Your task to perform on an android device: open app "Adobe Acrobat Reader" (install if not already installed) Image 0: 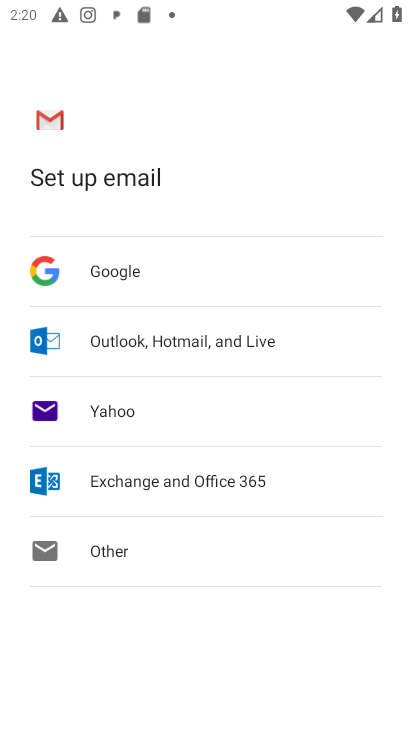
Step 0: press home button
Your task to perform on an android device: open app "Adobe Acrobat Reader" (install if not already installed) Image 1: 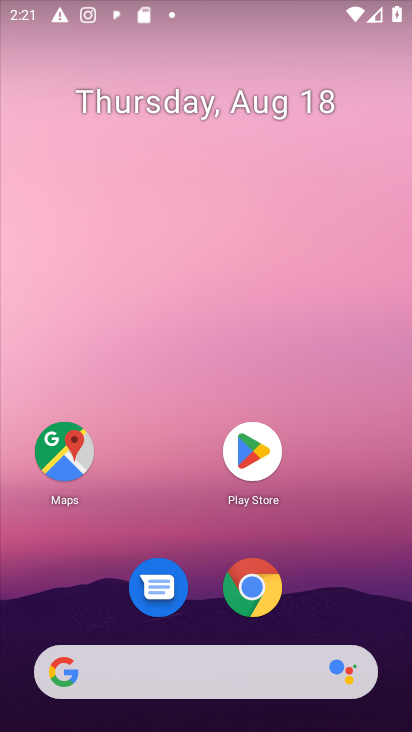
Step 1: click (258, 459)
Your task to perform on an android device: open app "Adobe Acrobat Reader" (install if not already installed) Image 2: 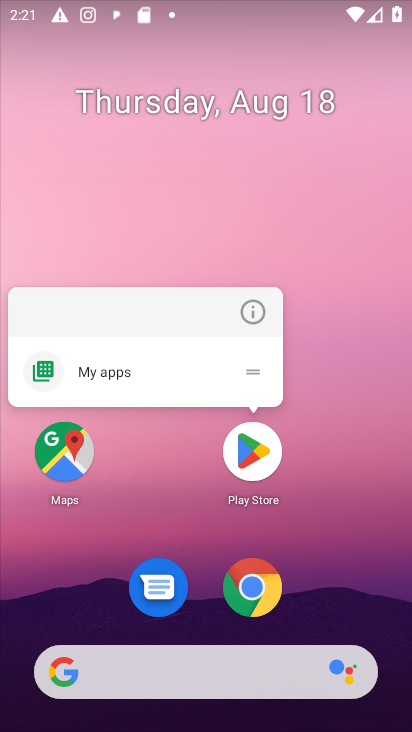
Step 2: click (258, 462)
Your task to perform on an android device: open app "Adobe Acrobat Reader" (install if not already installed) Image 3: 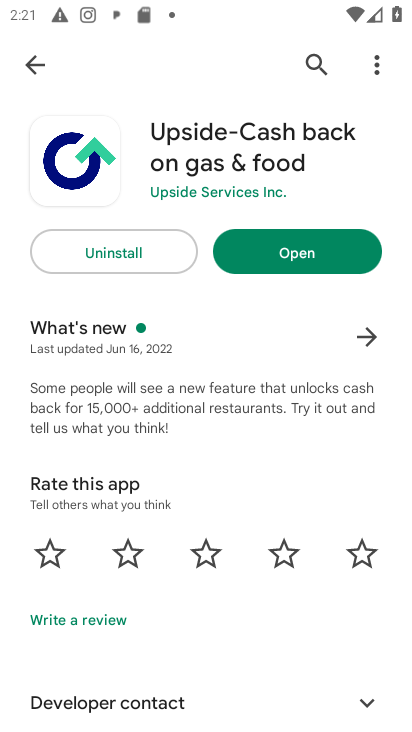
Step 3: click (307, 61)
Your task to perform on an android device: open app "Adobe Acrobat Reader" (install if not already installed) Image 4: 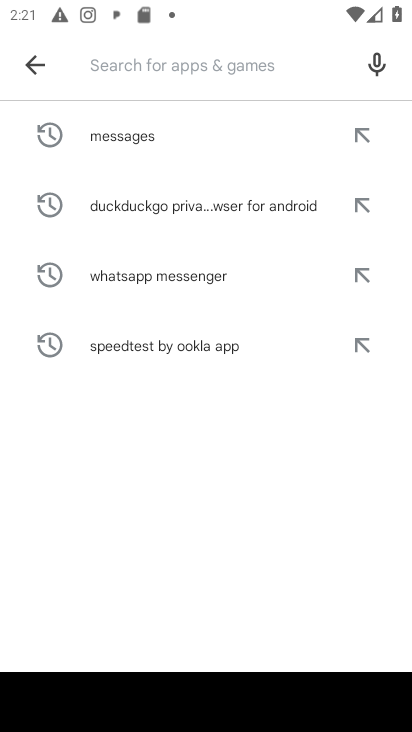
Step 4: type "Adobe Acrobat Reader"
Your task to perform on an android device: open app "Adobe Acrobat Reader" (install if not already installed) Image 5: 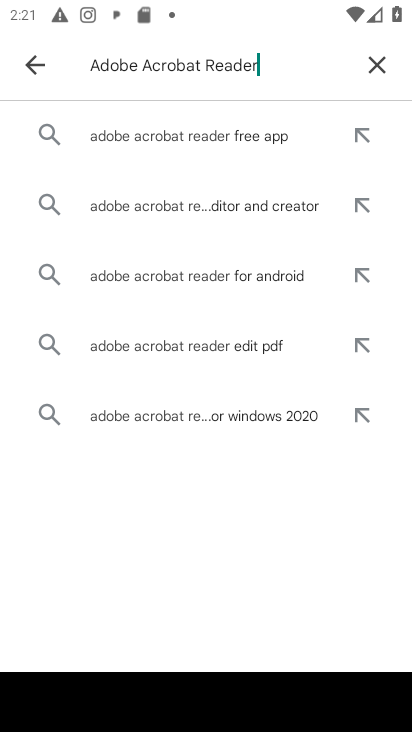
Step 5: click (237, 135)
Your task to perform on an android device: open app "Adobe Acrobat Reader" (install if not already installed) Image 6: 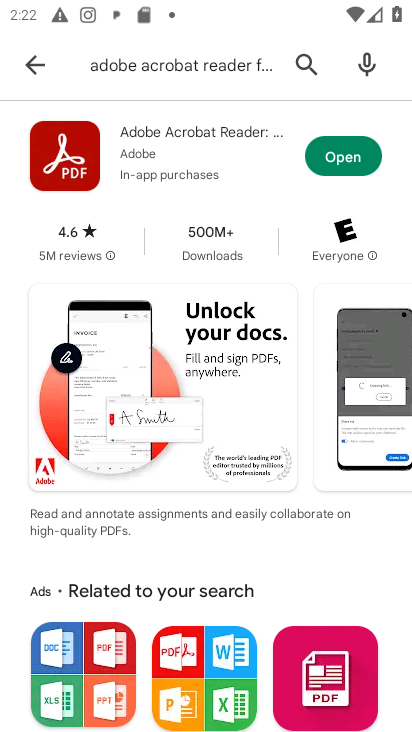
Step 6: click (349, 151)
Your task to perform on an android device: open app "Adobe Acrobat Reader" (install if not already installed) Image 7: 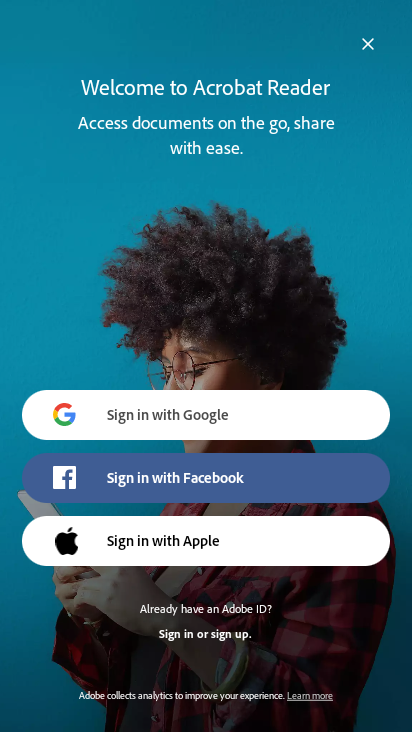
Step 7: task complete